Your task to perform on an android device: Open the map Image 0: 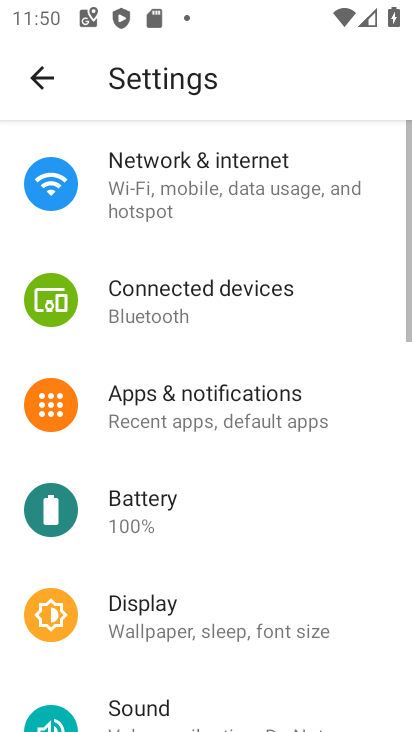
Step 0: press back button
Your task to perform on an android device: Open the map Image 1: 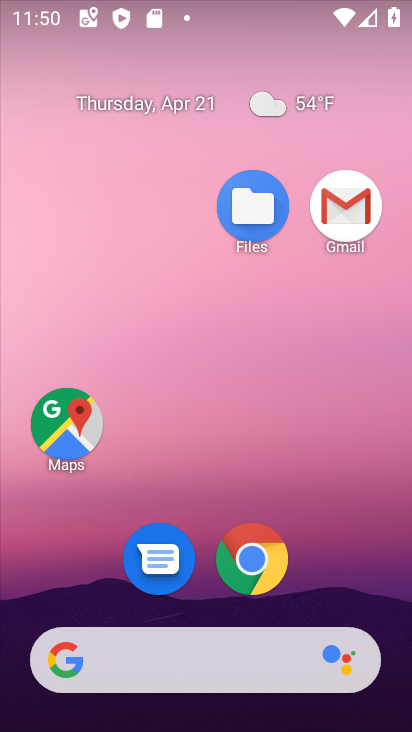
Step 1: click (75, 432)
Your task to perform on an android device: Open the map Image 2: 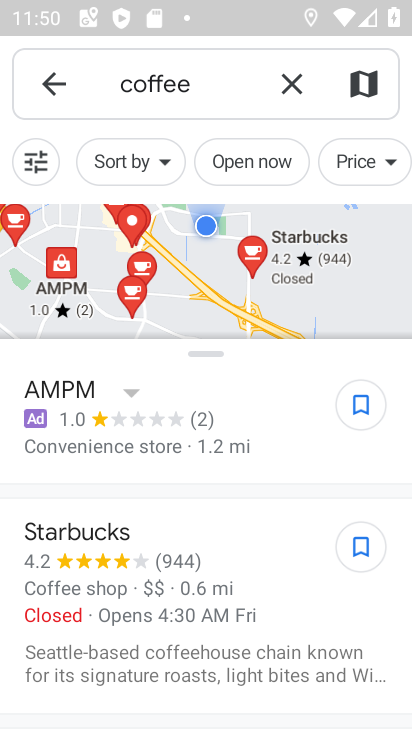
Step 2: task complete